Your task to perform on an android device: toggle translation in the chrome app Image 0: 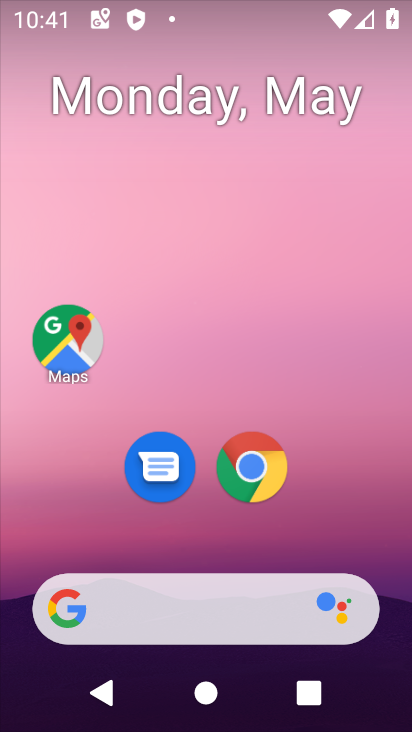
Step 0: click (256, 470)
Your task to perform on an android device: toggle translation in the chrome app Image 1: 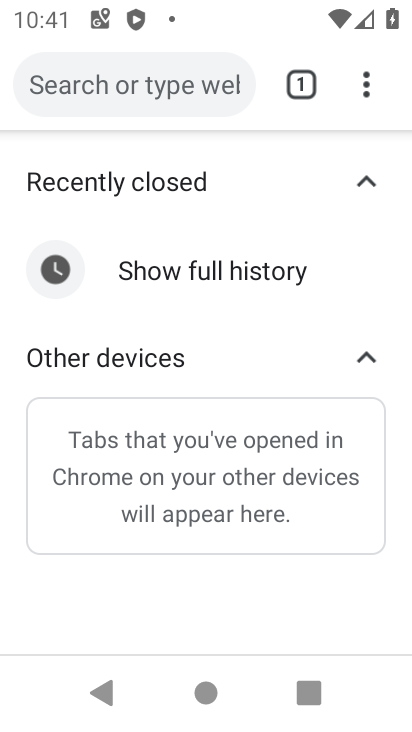
Step 1: click (370, 94)
Your task to perform on an android device: toggle translation in the chrome app Image 2: 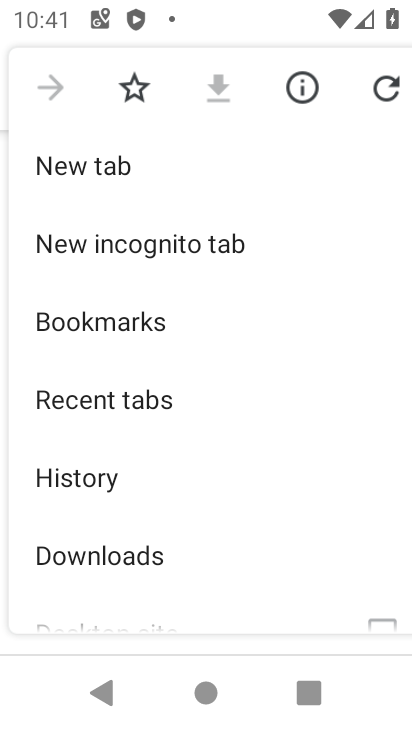
Step 2: drag from (215, 605) to (206, 123)
Your task to perform on an android device: toggle translation in the chrome app Image 3: 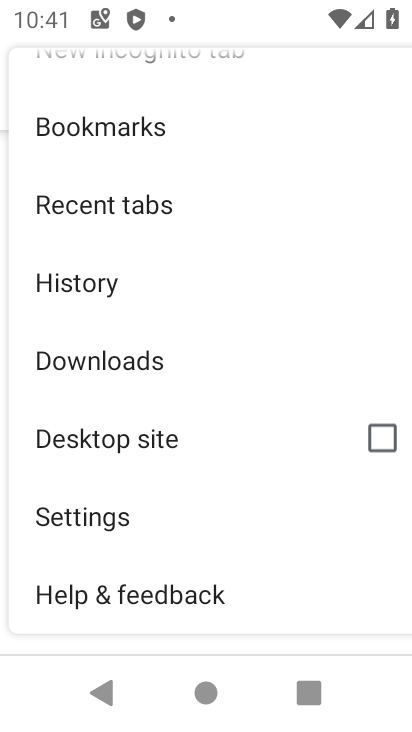
Step 3: click (113, 512)
Your task to perform on an android device: toggle translation in the chrome app Image 4: 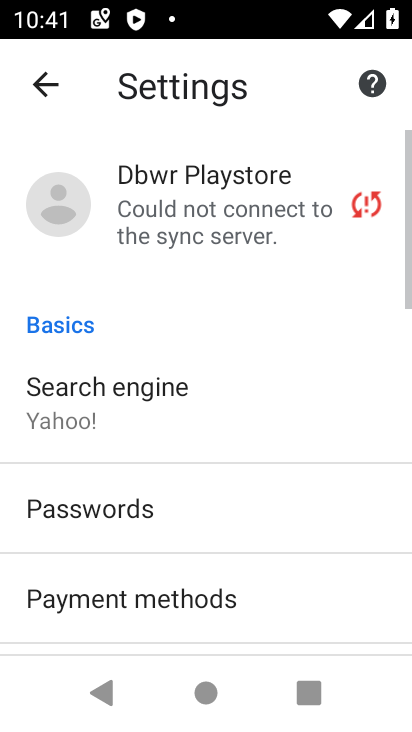
Step 4: drag from (299, 551) to (309, 56)
Your task to perform on an android device: toggle translation in the chrome app Image 5: 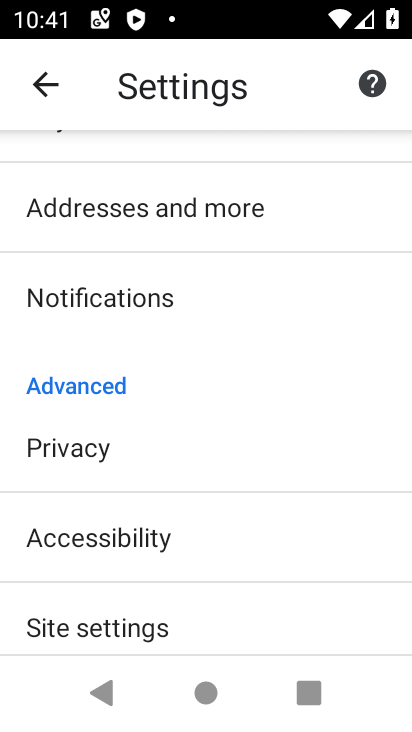
Step 5: drag from (228, 625) to (231, 303)
Your task to perform on an android device: toggle translation in the chrome app Image 6: 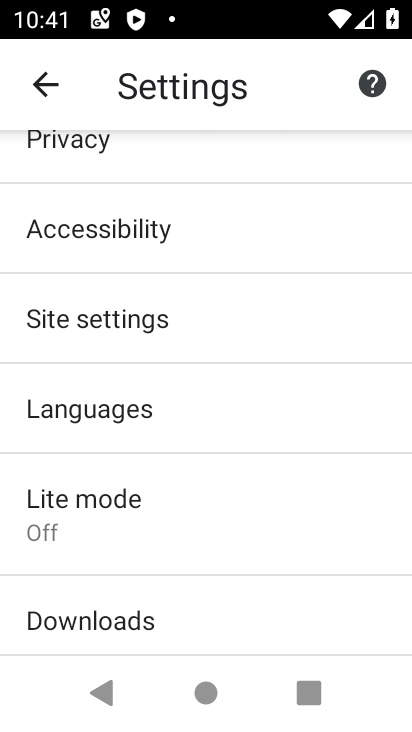
Step 6: click (90, 406)
Your task to perform on an android device: toggle translation in the chrome app Image 7: 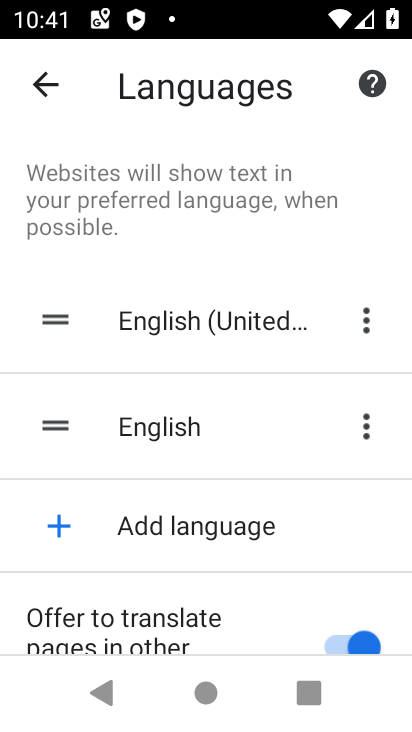
Step 7: click (338, 645)
Your task to perform on an android device: toggle translation in the chrome app Image 8: 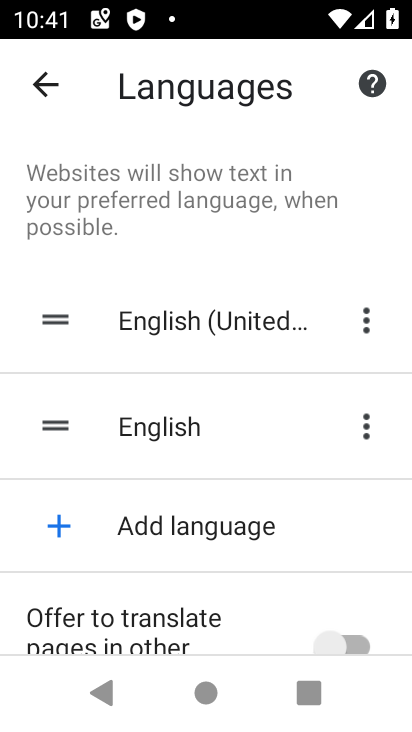
Step 8: task complete